Your task to perform on an android device: Open my contact list Image 0: 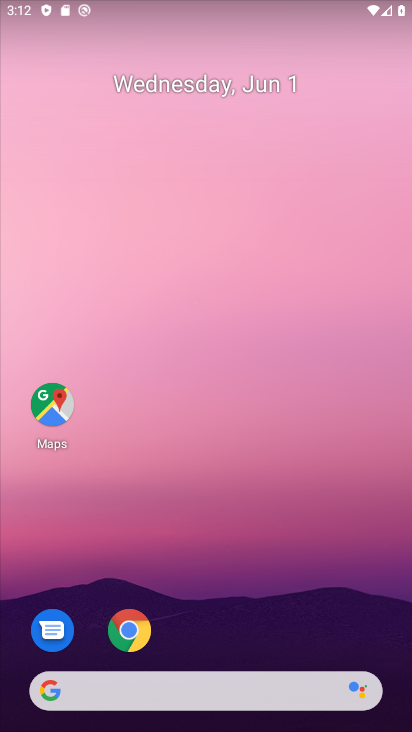
Step 0: press home button
Your task to perform on an android device: Open my contact list Image 1: 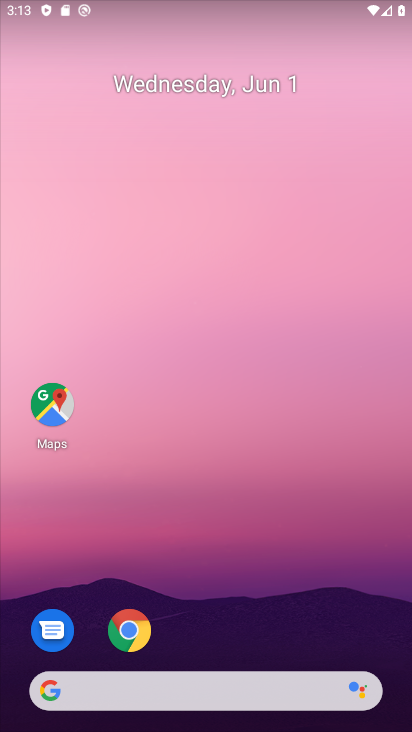
Step 1: drag from (257, 632) to (260, 157)
Your task to perform on an android device: Open my contact list Image 2: 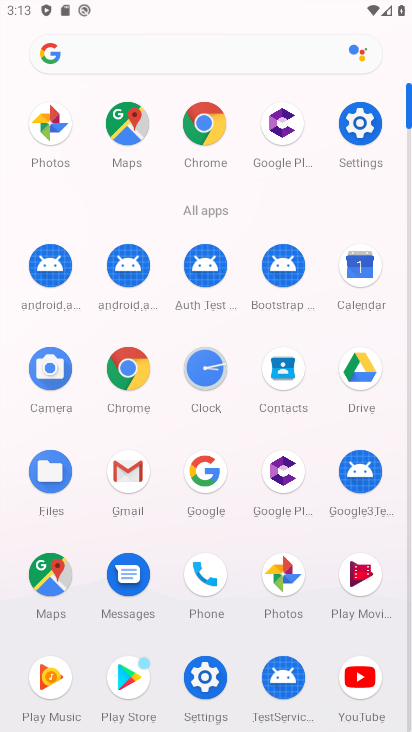
Step 2: drag from (178, 637) to (142, 249)
Your task to perform on an android device: Open my contact list Image 3: 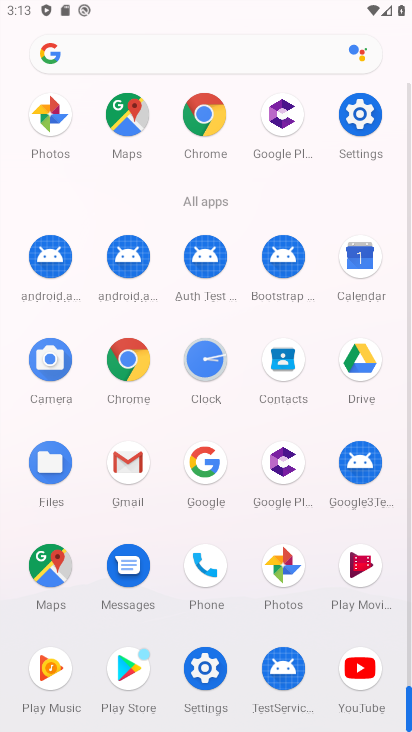
Step 3: click (284, 356)
Your task to perform on an android device: Open my contact list Image 4: 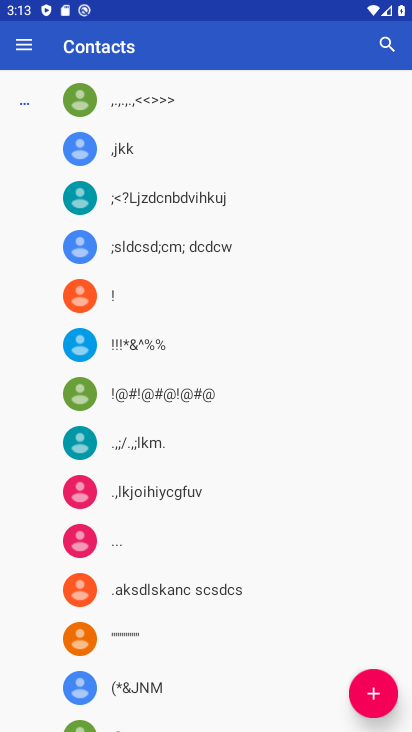
Step 4: task complete